Your task to perform on an android device: Go to internet settings Image 0: 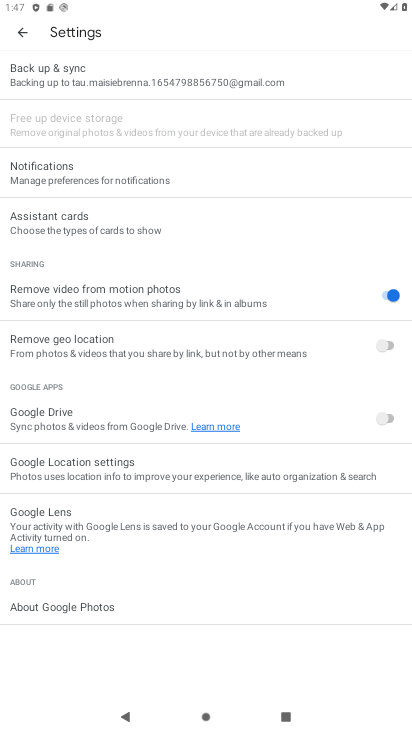
Step 0: press home button
Your task to perform on an android device: Go to internet settings Image 1: 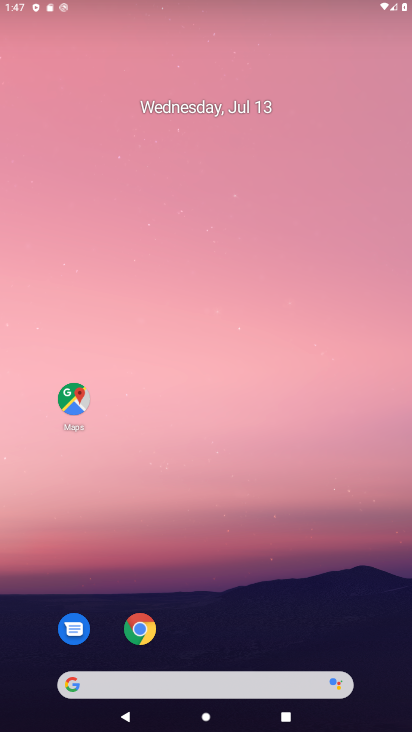
Step 1: drag from (225, 654) to (213, 92)
Your task to perform on an android device: Go to internet settings Image 2: 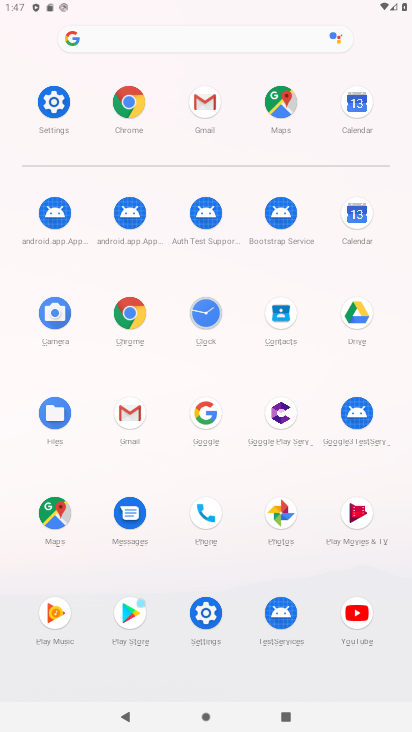
Step 2: click (55, 112)
Your task to perform on an android device: Go to internet settings Image 3: 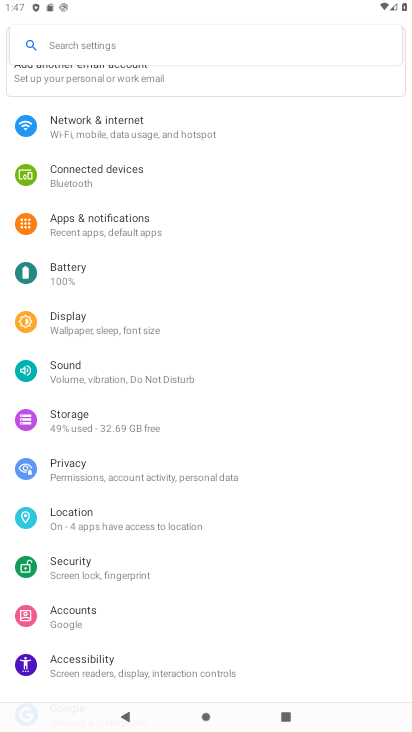
Step 3: click (112, 124)
Your task to perform on an android device: Go to internet settings Image 4: 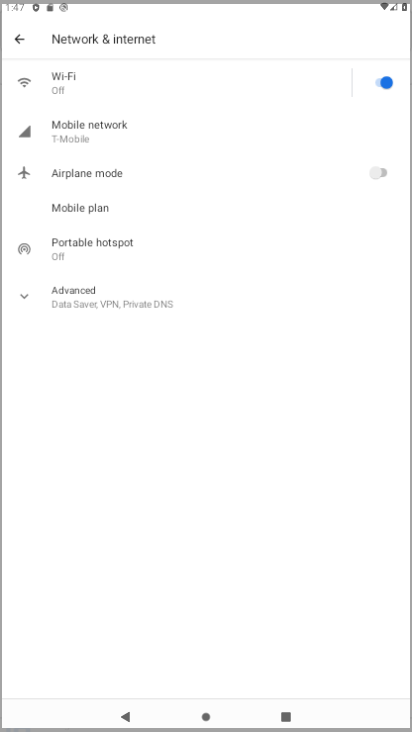
Step 4: task complete